Your task to perform on an android device: Open internet settings Image 0: 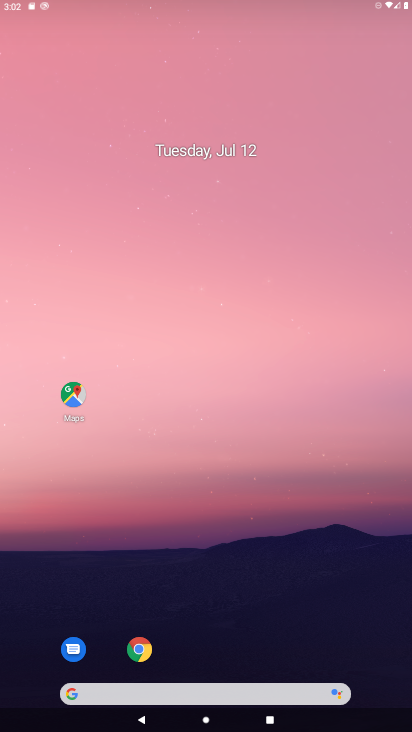
Step 0: drag from (283, 625) to (244, 296)
Your task to perform on an android device: Open internet settings Image 1: 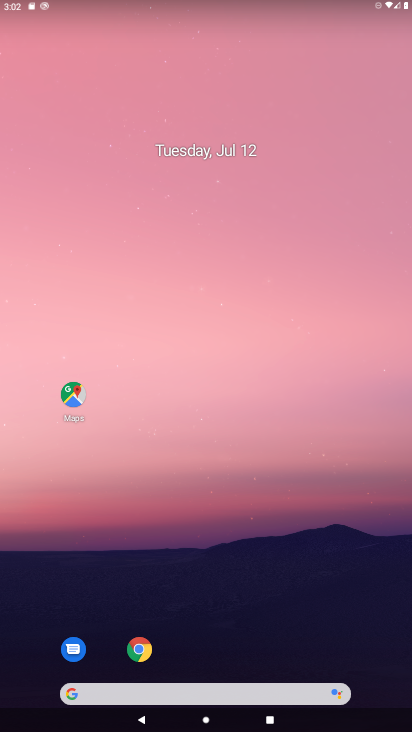
Step 1: drag from (275, 647) to (225, 58)
Your task to perform on an android device: Open internet settings Image 2: 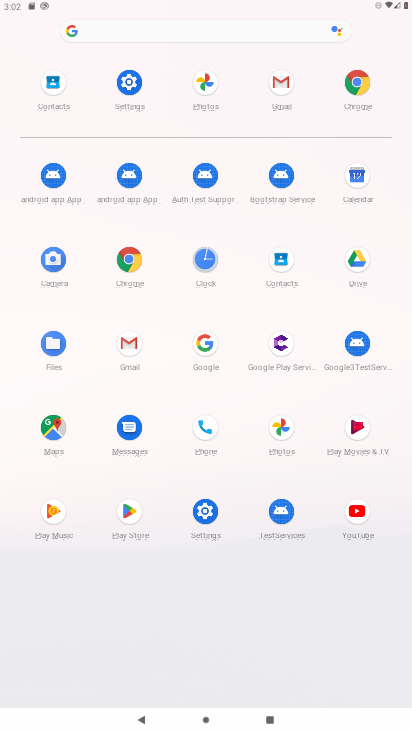
Step 2: click (138, 90)
Your task to perform on an android device: Open internet settings Image 3: 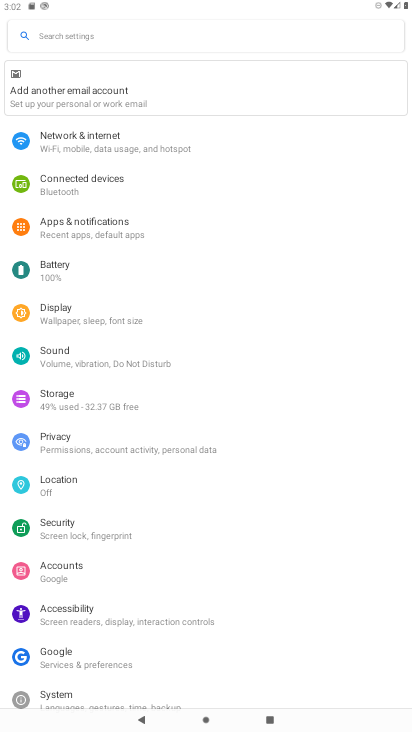
Step 3: click (107, 143)
Your task to perform on an android device: Open internet settings Image 4: 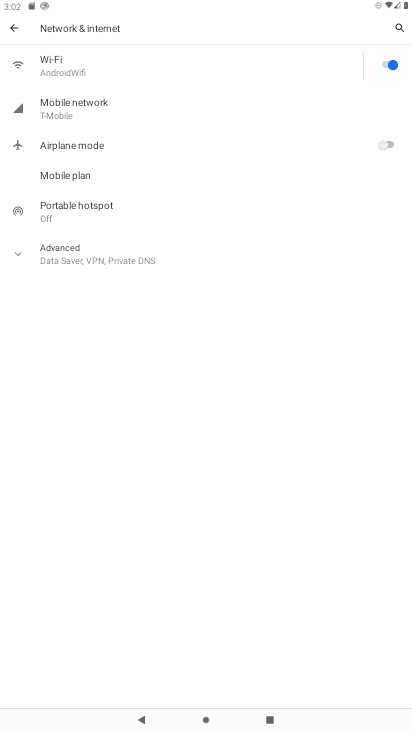
Step 4: task complete